Your task to perform on an android device: Open the calendar and show me this week's events? Image 0: 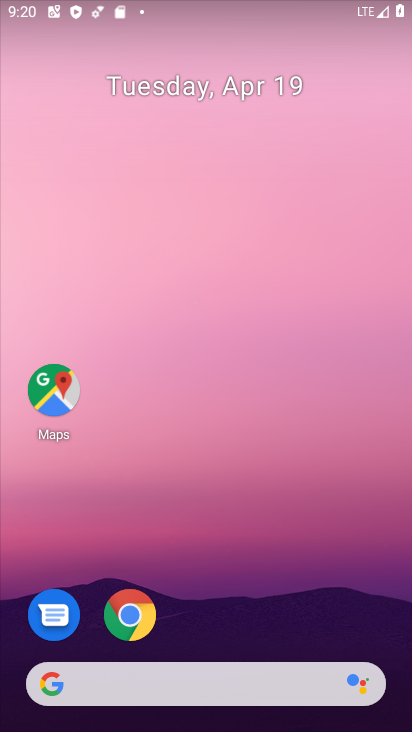
Step 0: click (214, 83)
Your task to perform on an android device: Open the calendar and show me this week's events? Image 1: 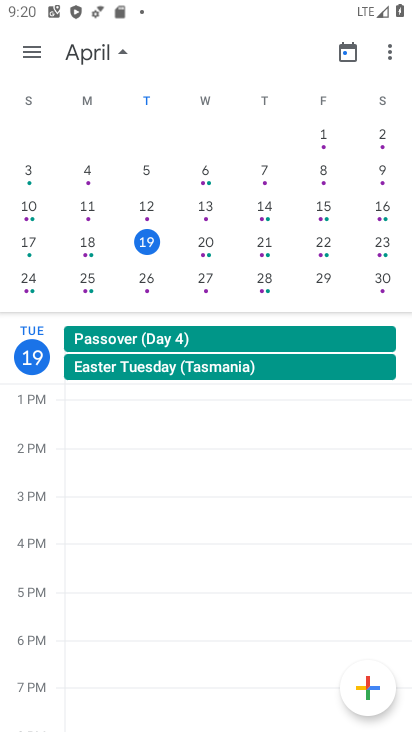
Step 1: task complete